Your task to perform on an android device: move an email to a new category in the gmail app Image 0: 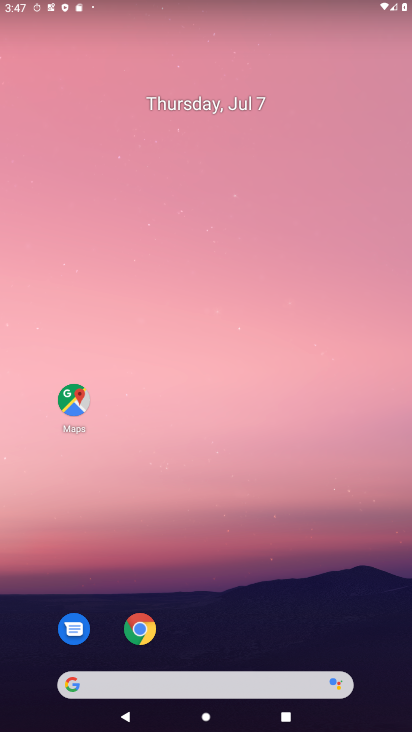
Step 0: drag from (182, 252) to (222, 13)
Your task to perform on an android device: move an email to a new category in the gmail app Image 1: 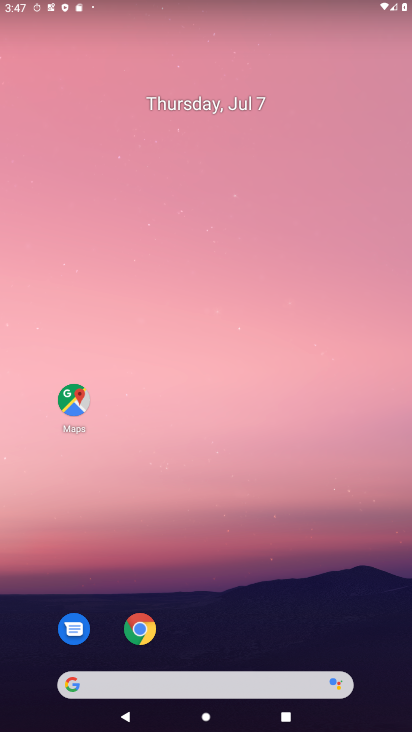
Step 1: drag from (200, 541) to (203, 217)
Your task to perform on an android device: move an email to a new category in the gmail app Image 2: 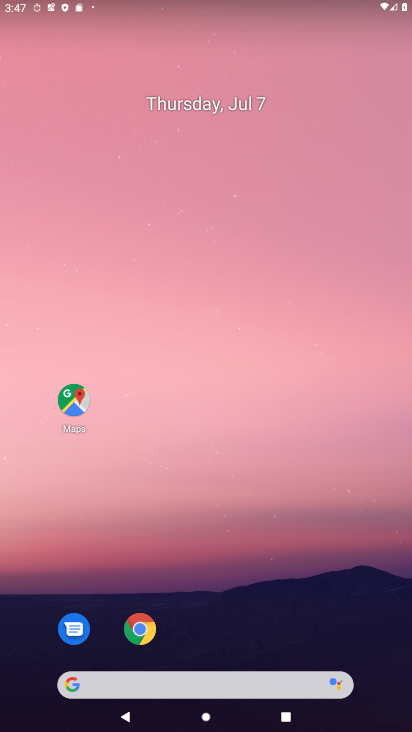
Step 2: drag from (209, 656) to (185, 5)
Your task to perform on an android device: move an email to a new category in the gmail app Image 3: 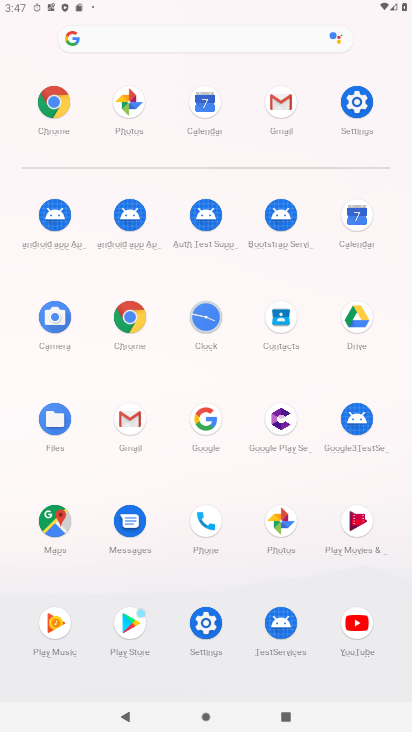
Step 3: click (281, 104)
Your task to perform on an android device: move an email to a new category in the gmail app Image 4: 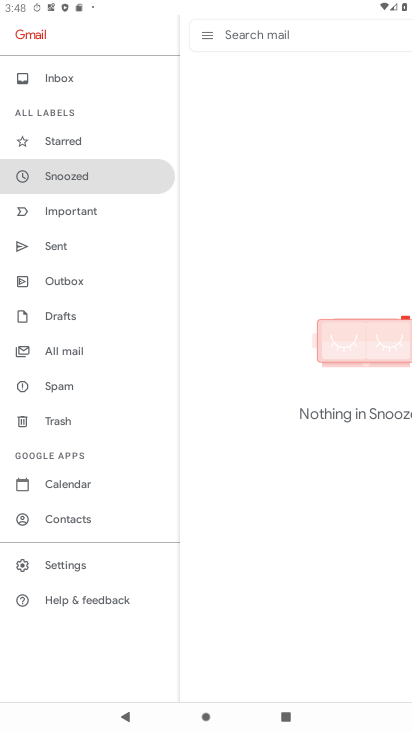
Step 4: click (63, 350)
Your task to perform on an android device: move an email to a new category in the gmail app Image 5: 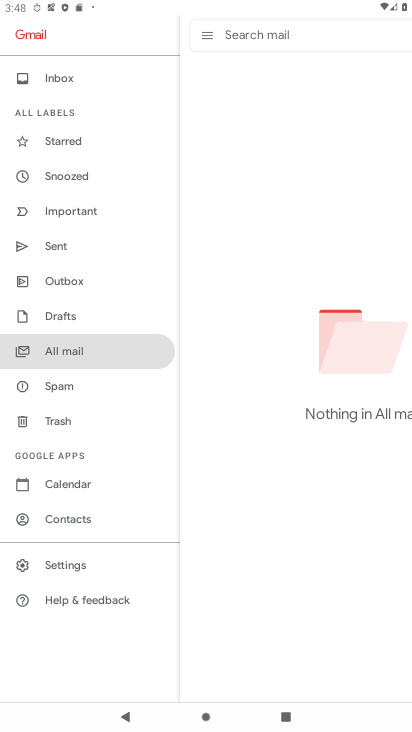
Step 5: task complete